Your task to perform on an android device: Open Yahoo.com Image 0: 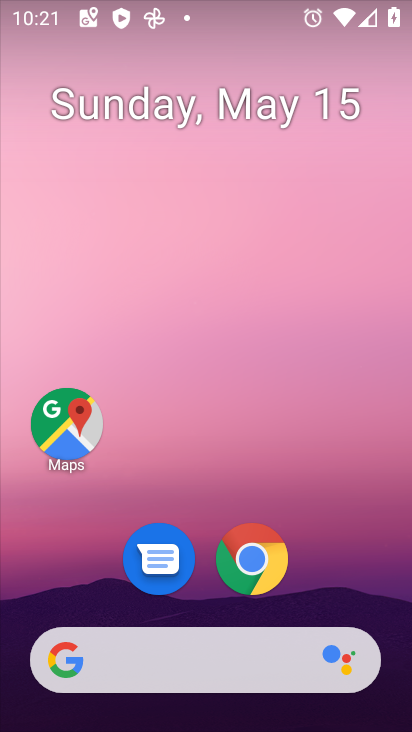
Step 0: click (260, 539)
Your task to perform on an android device: Open Yahoo.com Image 1: 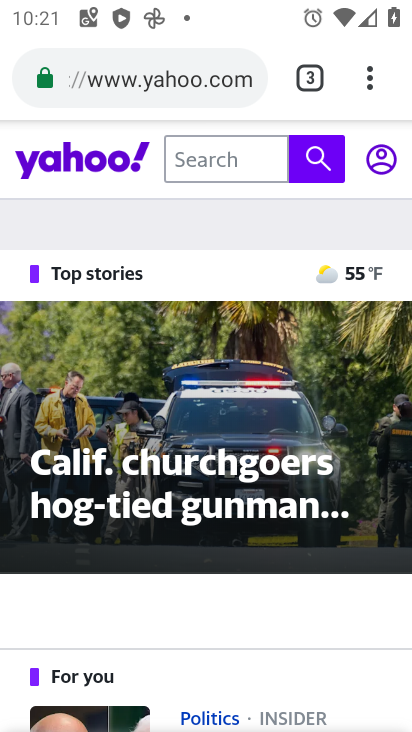
Step 1: task complete